Your task to perform on an android device: turn on translation in the chrome app Image 0: 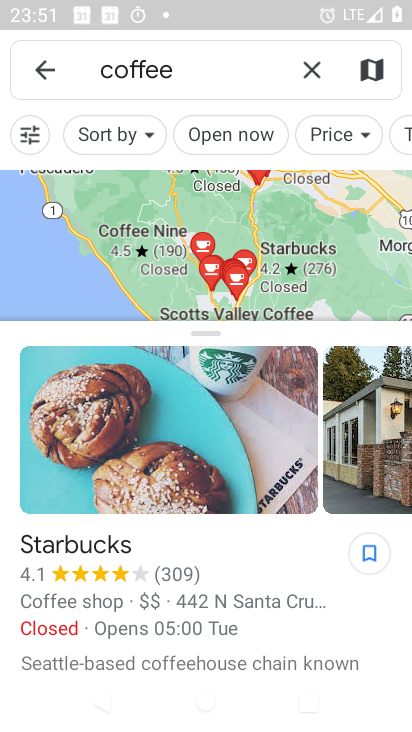
Step 0: press home button
Your task to perform on an android device: turn on translation in the chrome app Image 1: 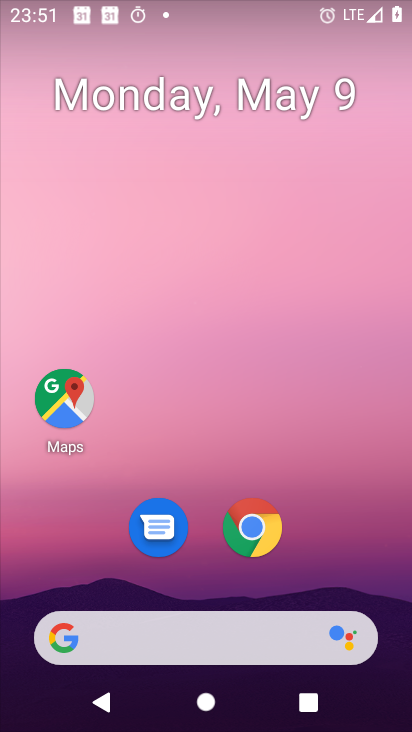
Step 1: click (247, 526)
Your task to perform on an android device: turn on translation in the chrome app Image 2: 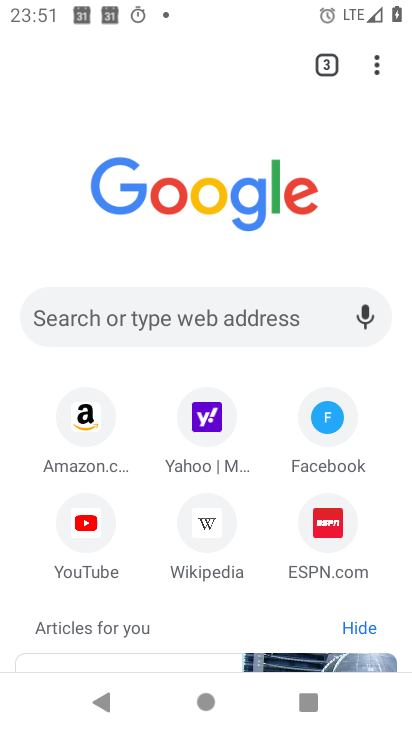
Step 2: click (370, 67)
Your task to perform on an android device: turn on translation in the chrome app Image 3: 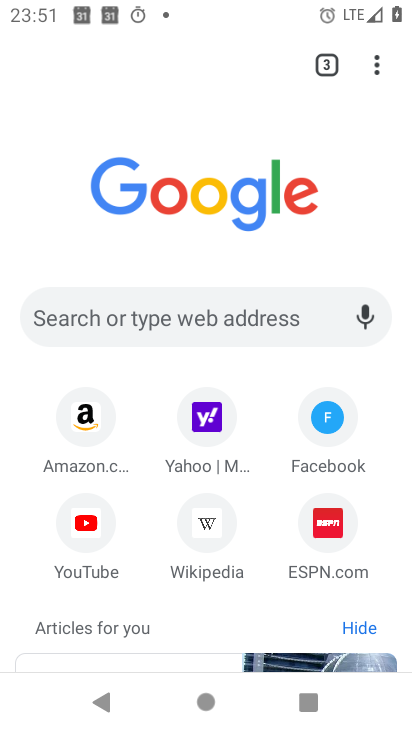
Step 3: click (367, 65)
Your task to perform on an android device: turn on translation in the chrome app Image 4: 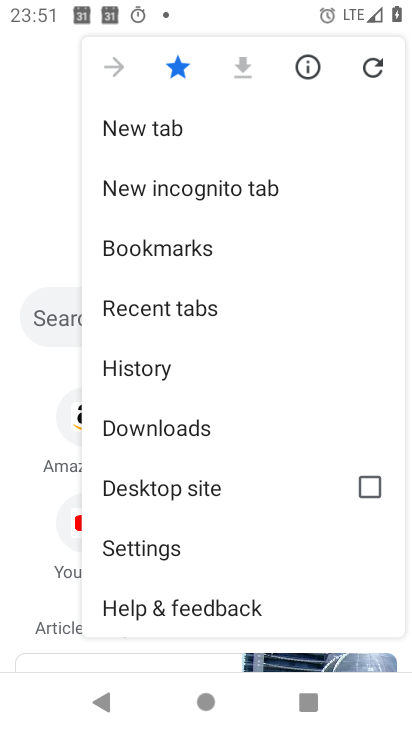
Step 4: click (226, 557)
Your task to perform on an android device: turn on translation in the chrome app Image 5: 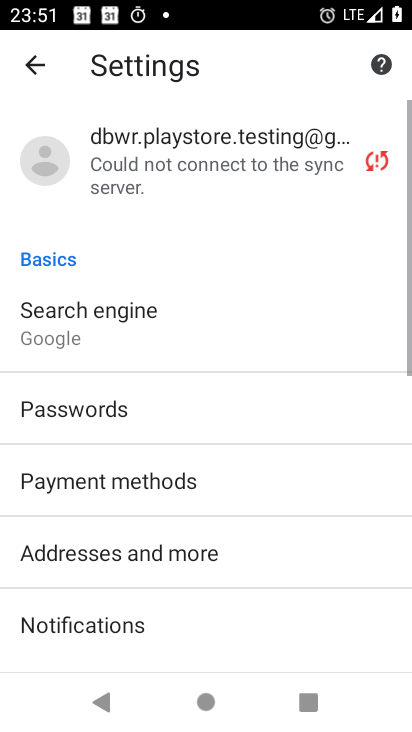
Step 5: drag from (226, 557) to (254, 77)
Your task to perform on an android device: turn on translation in the chrome app Image 6: 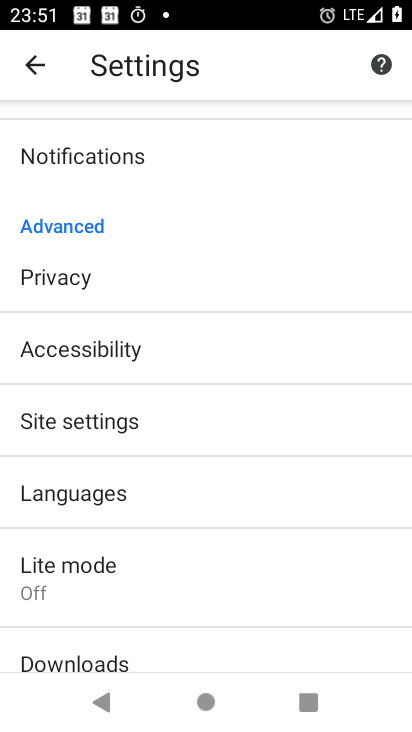
Step 6: click (109, 498)
Your task to perform on an android device: turn on translation in the chrome app Image 7: 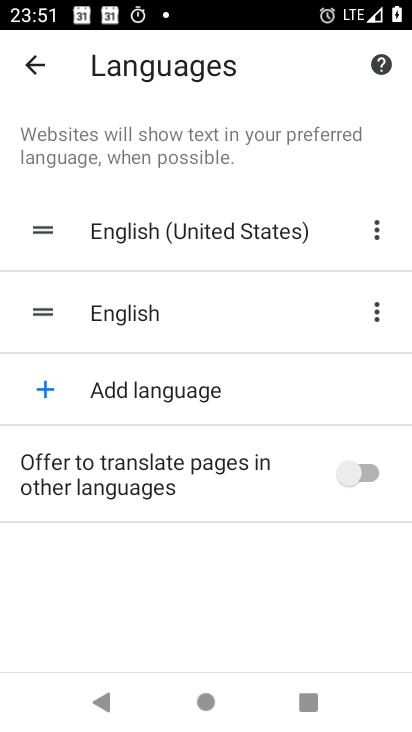
Step 7: click (363, 481)
Your task to perform on an android device: turn on translation in the chrome app Image 8: 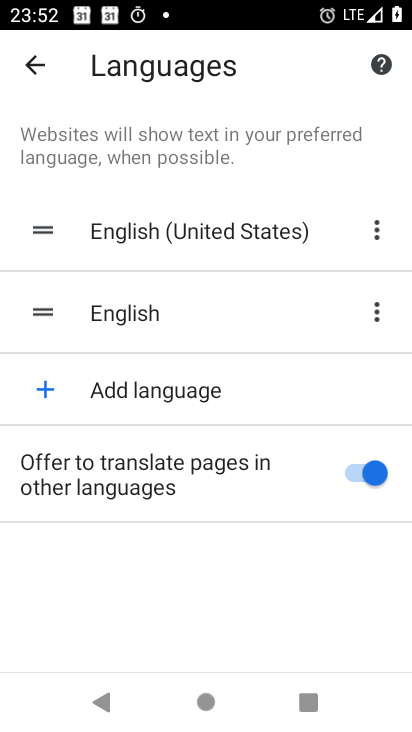
Step 8: task complete